Your task to perform on an android device: Open Android settings Image 0: 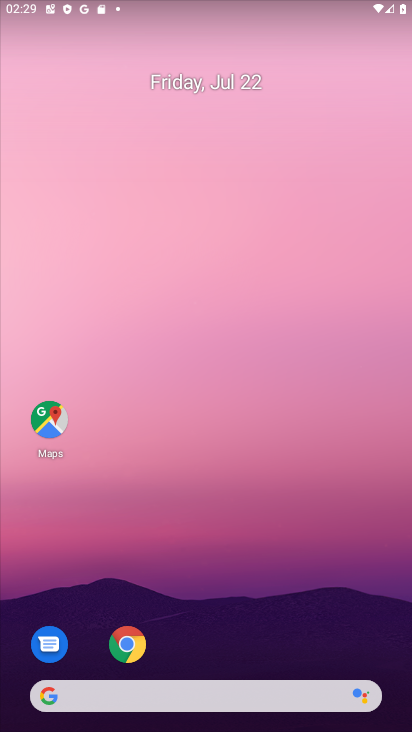
Step 0: drag from (179, 629) to (149, 20)
Your task to perform on an android device: Open Android settings Image 1: 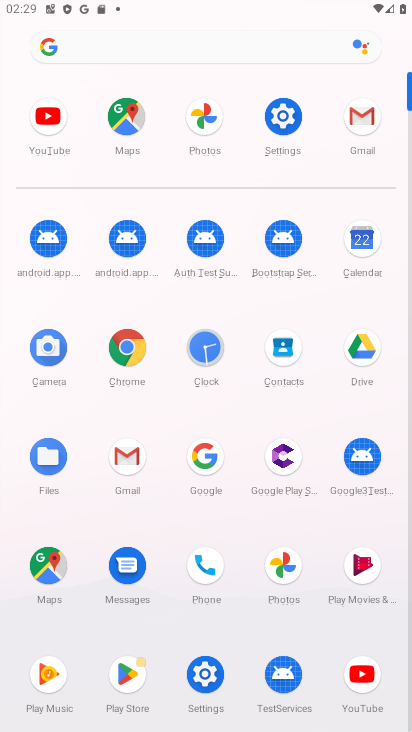
Step 1: click (274, 130)
Your task to perform on an android device: Open Android settings Image 2: 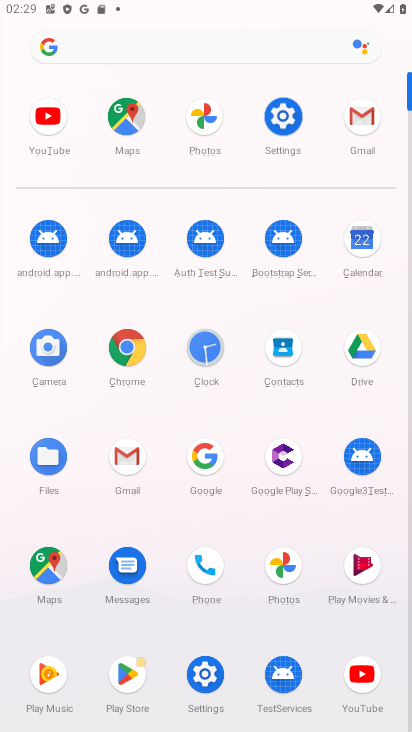
Step 2: click (274, 130)
Your task to perform on an android device: Open Android settings Image 3: 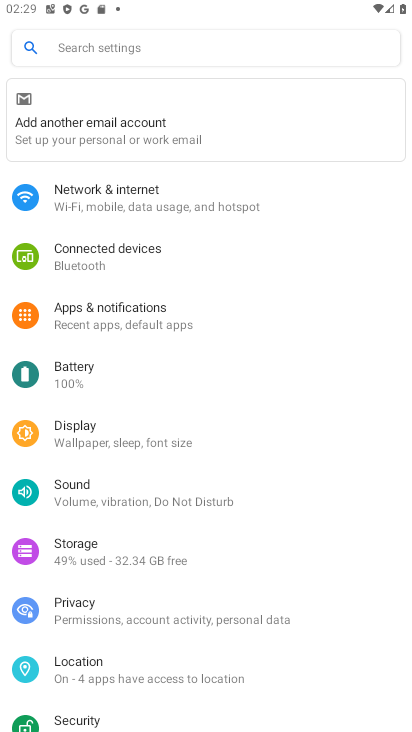
Step 3: drag from (301, 623) to (181, 29)
Your task to perform on an android device: Open Android settings Image 4: 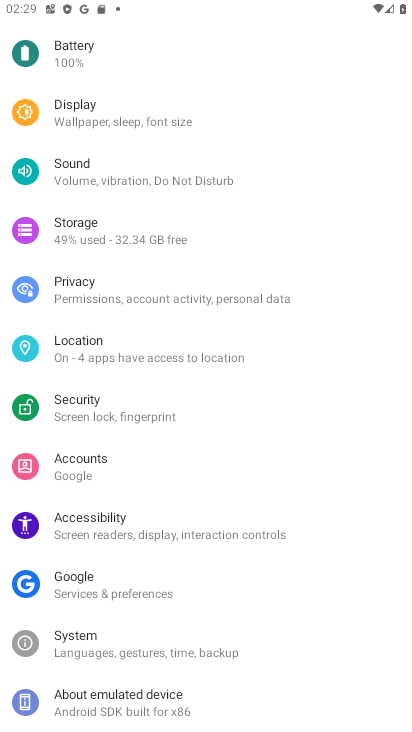
Step 4: drag from (217, 622) to (266, 64)
Your task to perform on an android device: Open Android settings Image 5: 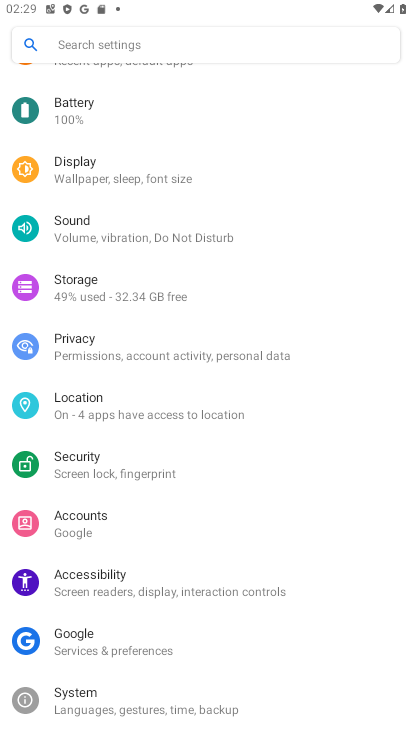
Step 5: click (172, 704)
Your task to perform on an android device: Open Android settings Image 6: 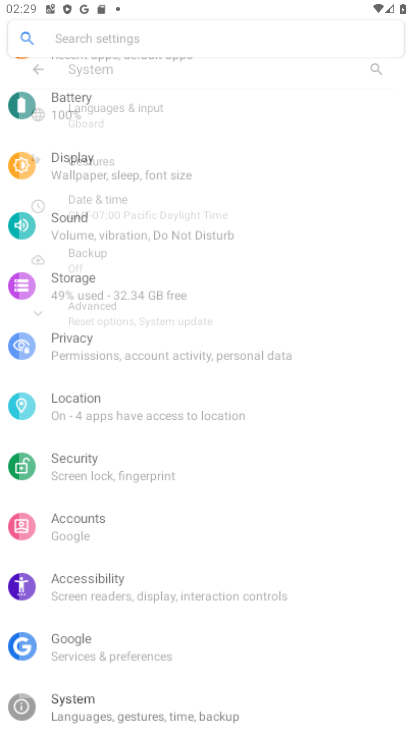
Step 6: drag from (182, 706) to (240, 158)
Your task to perform on an android device: Open Android settings Image 7: 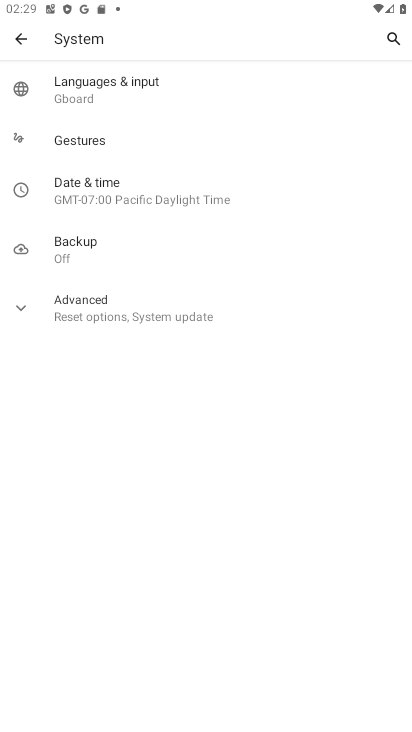
Step 7: click (13, 39)
Your task to perform on an android device: Open Android settings Image 8: 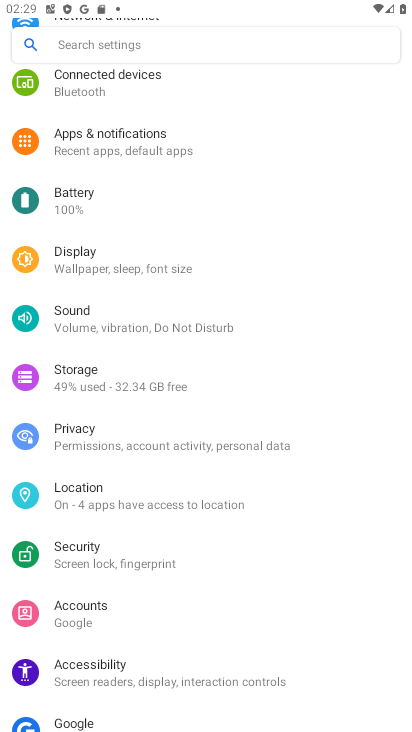
Step 8: drag from (235, 512) to (183, 6)
Your task to perform on an android device: Open Android settings Image 9: 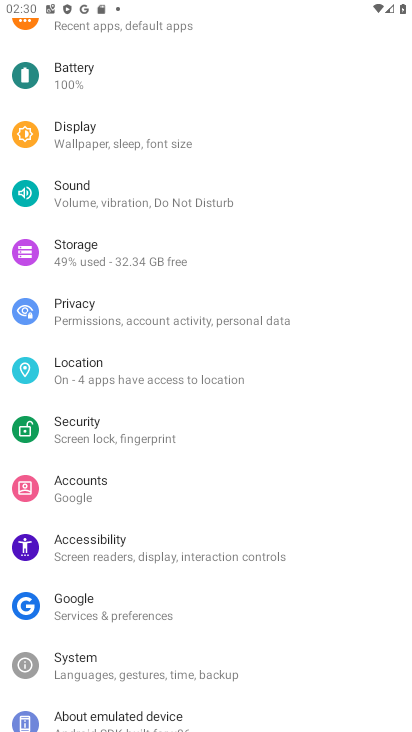
Step 9: drag from (219, 464) to (222, 161)
Your task to perform on an android device: Open Android settings Image 10: 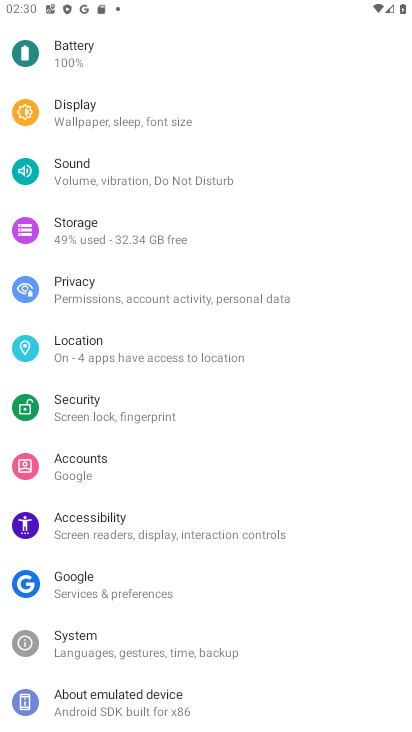
Step 10: click (241, 704)
Your task to perform on an android device: Open Android settings Image 11: 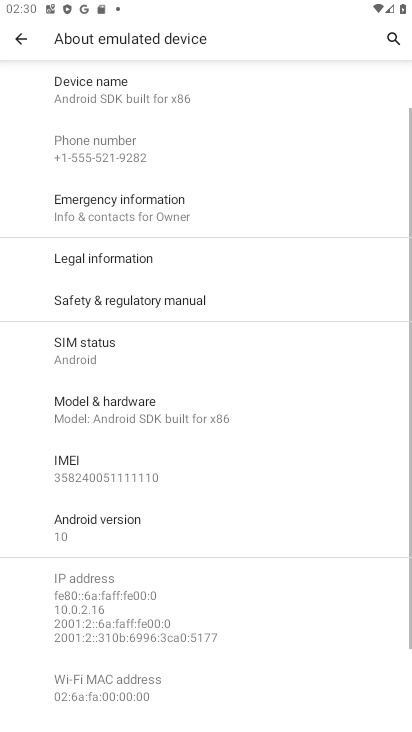
Step 11: task complete